Your task to perform on an android device: What's the weather today? Image 0: 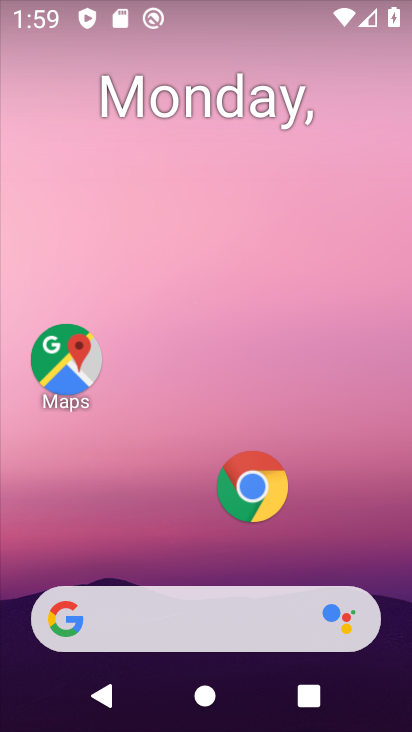
Step 0: click (174, 609)
Your task to perform on an android device: What's the weather today? Image 1: 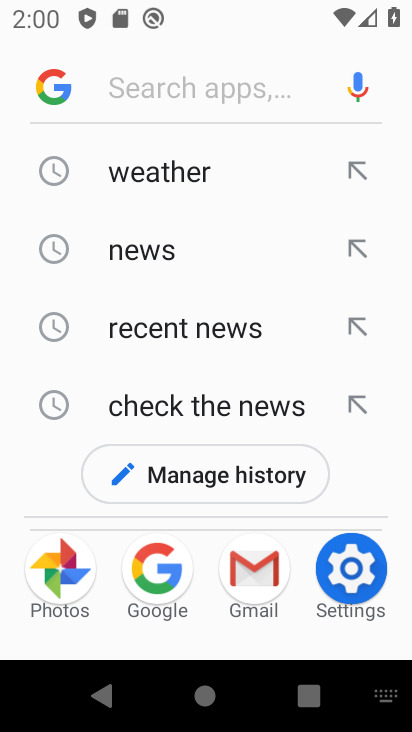
Step 1: type "what's the weather today"
Your task to perform on an android device: What's the weather today? Image 2: 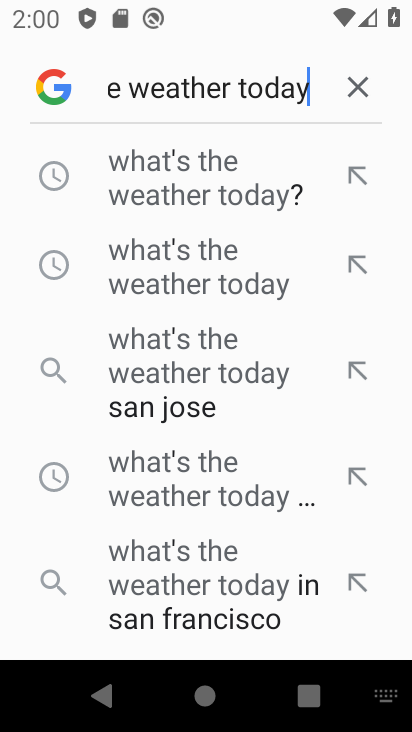
Step 2: click (195, 186)
Your task to perform on an android device: What's the weather today? Image 3: 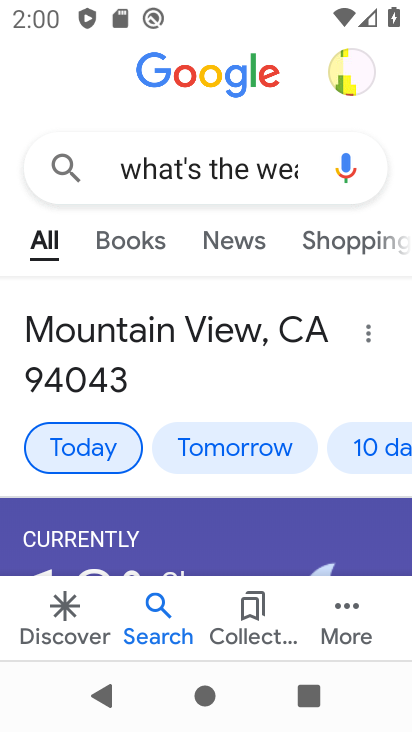
Step 3: task complete